Your task to perform on an android device: toggle notification dots Image 0: 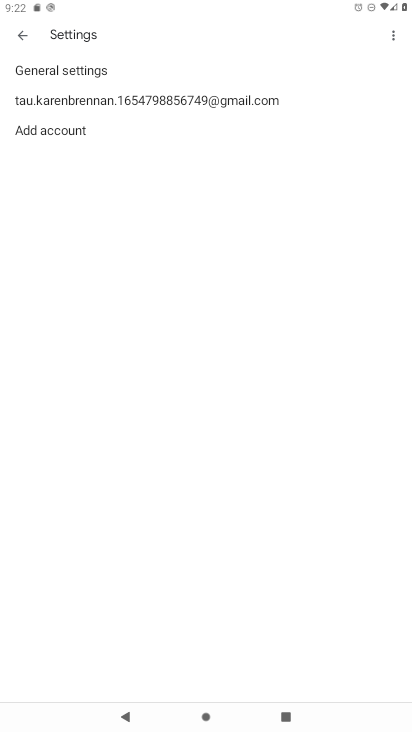
Step 0: press home button
Your task to perform on an android device: toggle notification dots Image 1: 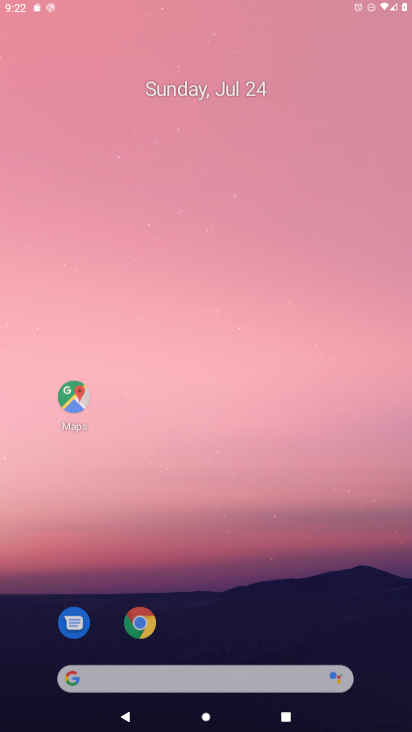
Step 1: drag from (385, 663) to (131, 38)
Your task to perform on an android device: toggle notification dots Image 2: 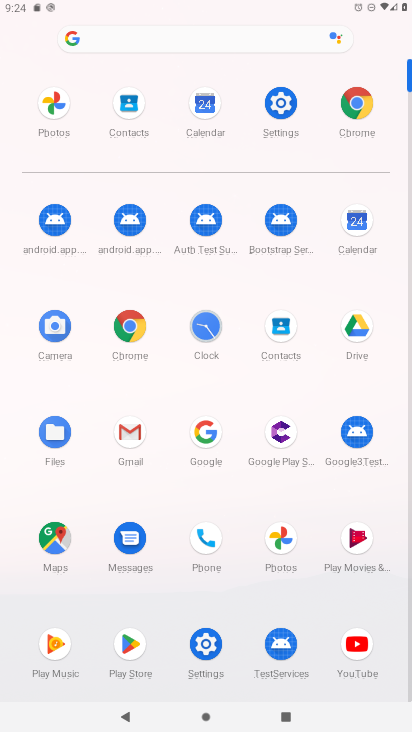
Step 2: click (197, 654)
Your task to perform on an android device: toggle notification dots Image 3: 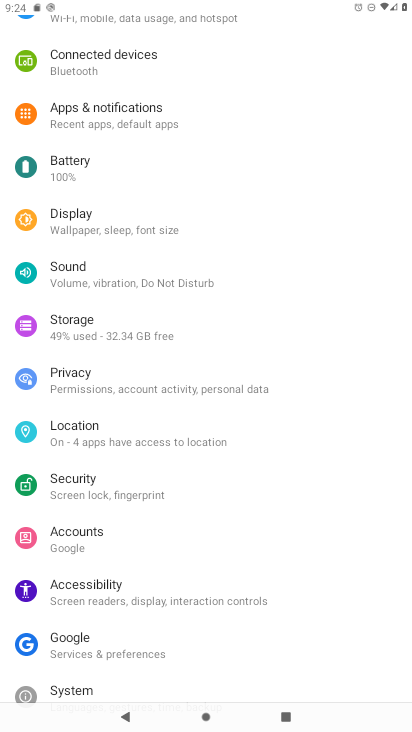
Step 3: click (95, 115)
Your task to perform on an android device: toggle notification dots Image 4: 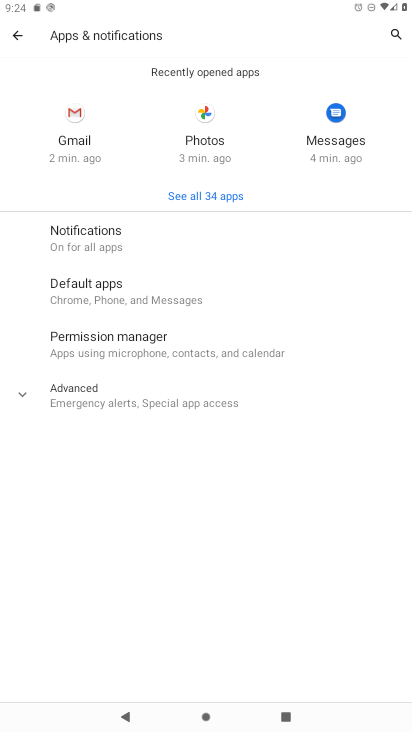
Step 4: click (83, 230)
Your task to perform on an android device: toggle notification dots Image 5: 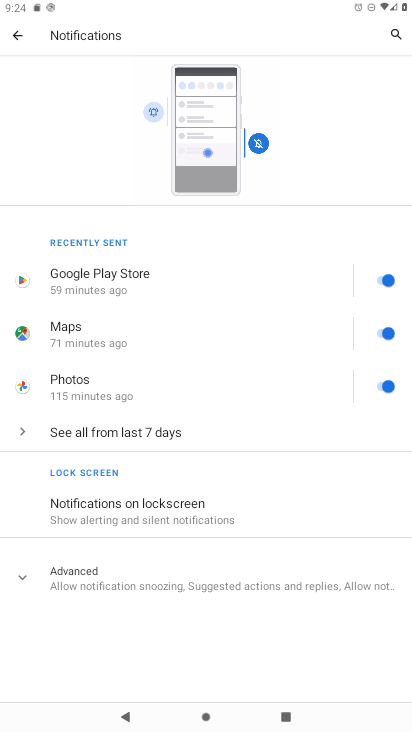
Step 5: click (109, 577)
Your task to perform on an android device: toggle notification dots Image 6: 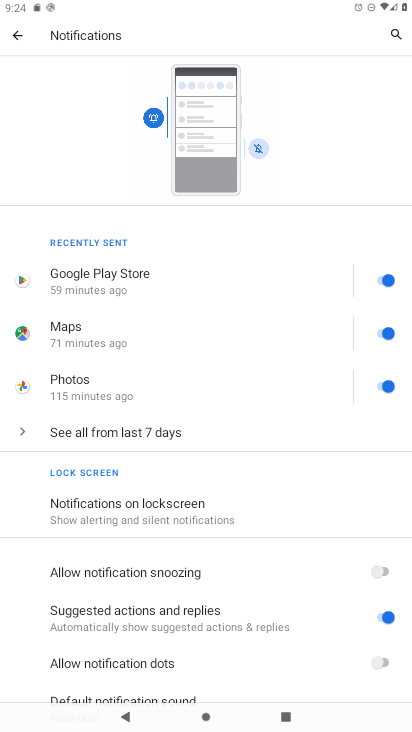
Step 6: click (169, 669)
Your task to perform on an android device: toggle notification dots Image 7: 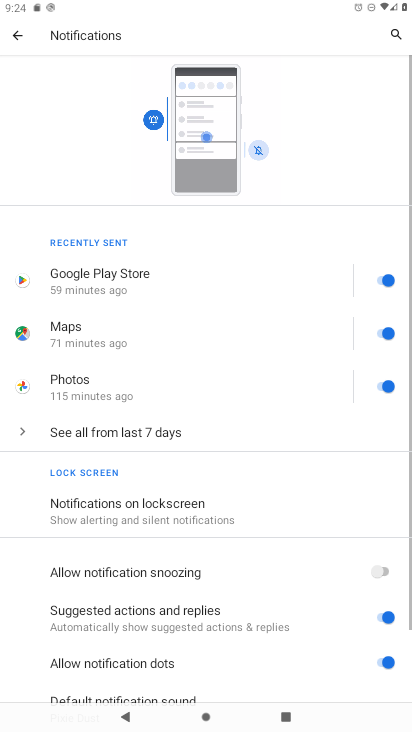
Step 7: task complete